Your task to perform on an android device: When is my next appointment? Image 0: 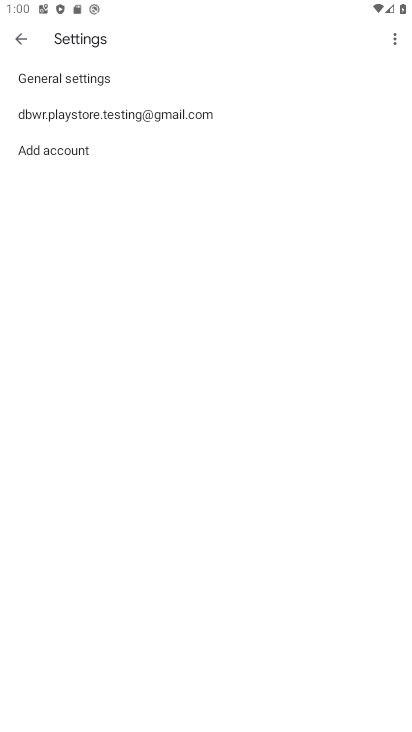
Step 0: press home button
Your task to perform on an android device: When is my next appointment? Image 1: 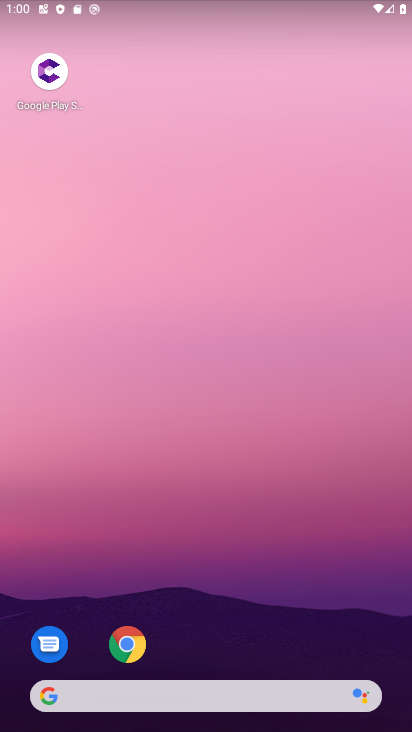
Step 1: drag from (383, 624) to (290, 294)
Your task to perform on an android device: When is my next appointment? Image 2: 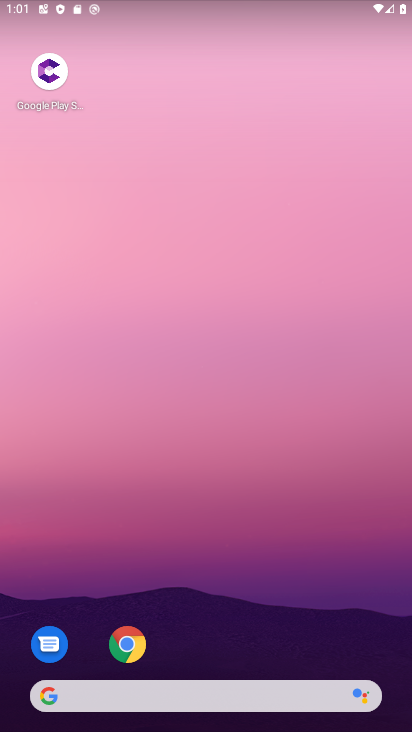
Step 2: drag from (393, 673) to (344, 246)
Your task to perform on an android device: When is my next appointment? Image 3: 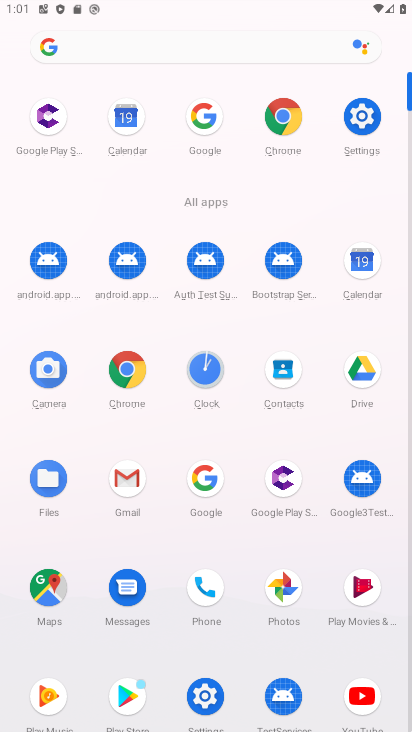
Step 3: click (360, 273)
Your task to perform on an android device: When is my next appointment? Image 4: 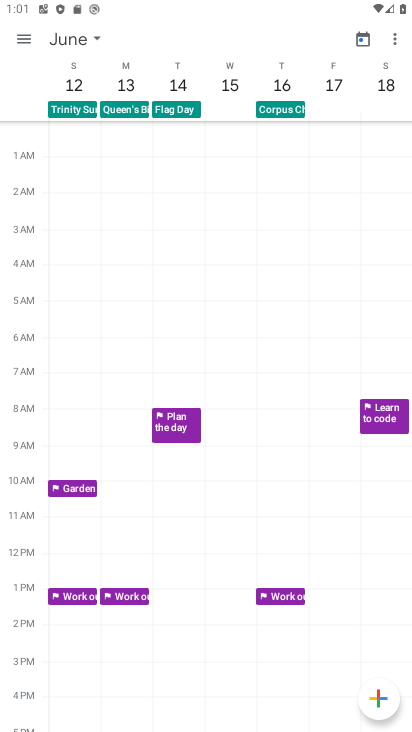
Step 4: click (30, 43)
Your task to perform on an android device: When is my next appointment? Image 5: 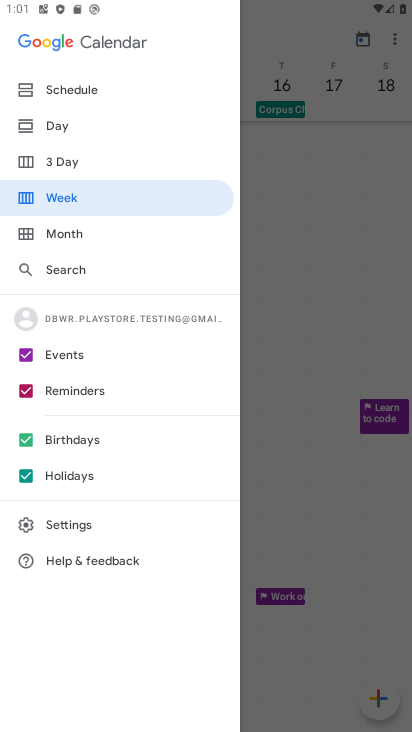
Step 5: click (21, 33)
Your task to perform on an android device: When is my next appointment? Image 6: 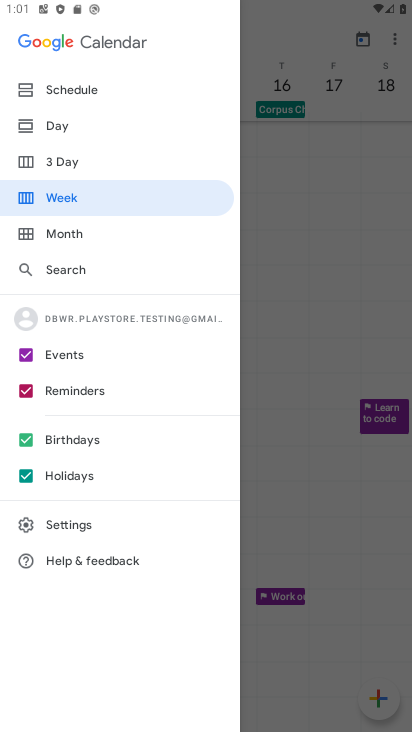
Step 6: click (21, 33)
Your task to perform on an android device: When is my next appointment? Image 7: 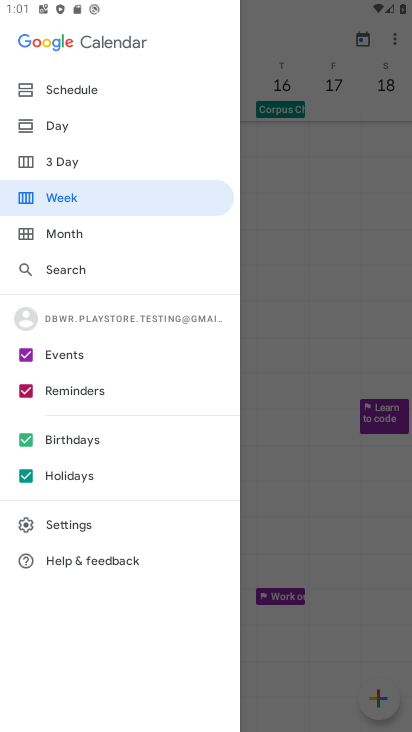
Step 7: click (59, 85)
Your task to perform on an android device: When is my next appointment? Image 8: 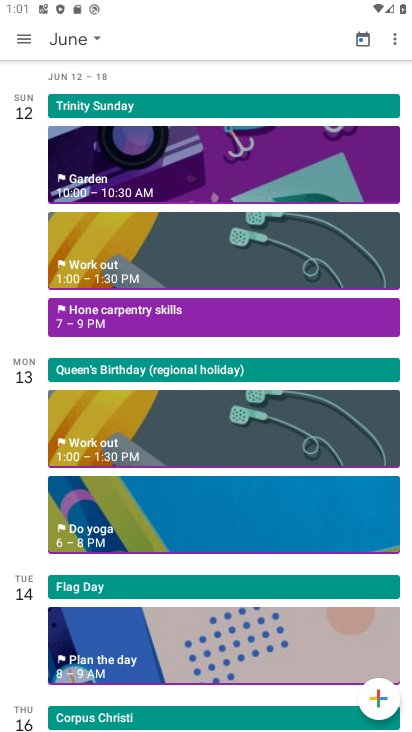
Step 8: task complete